Your task to perform on an android device: open a new tab in the chrome app Image 0: 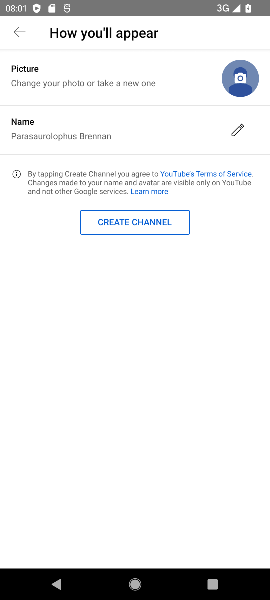
Step 0: press home button
Your task to perform on an android device: open a new tab in the chrome app Image 1: 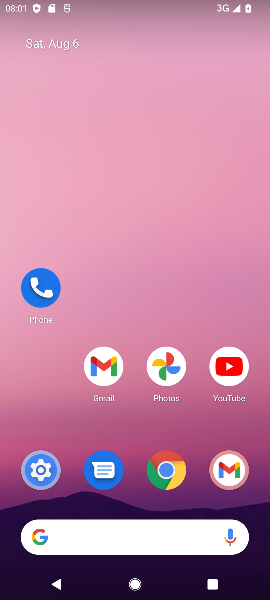
Step 1: drag from (134, 530) to (268, 58)
Your task to perform on an android device: open a new tab in the chrome app Image 2: 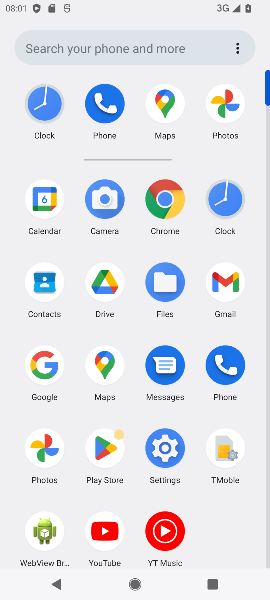
Step 2: click (152, 206)
Your task to perform on an android device: open a new tab in the chrome app Image 3: 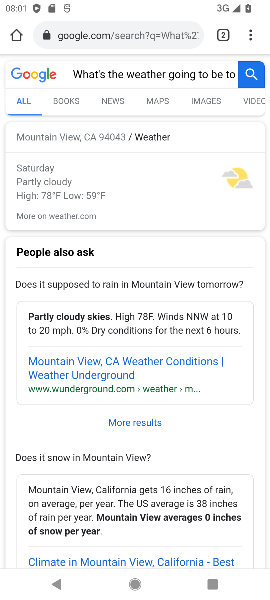
Step 3: task complete